Your task to perform on an android device: check battery use Image 0: 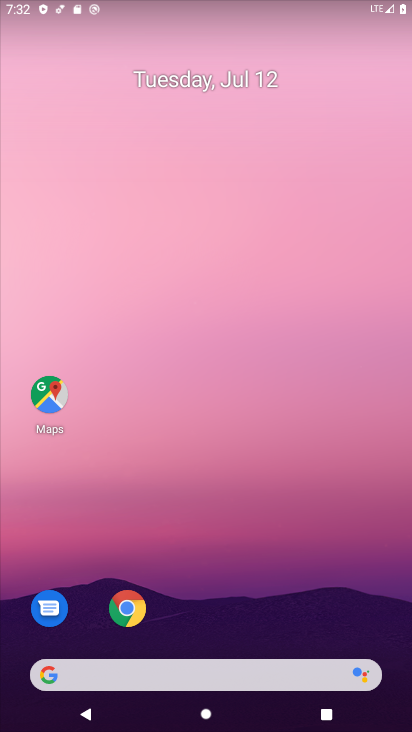
Step 0: drag from (170, 652) to (299, 234)
Your task to perform on an android device: check battery use Image 1: 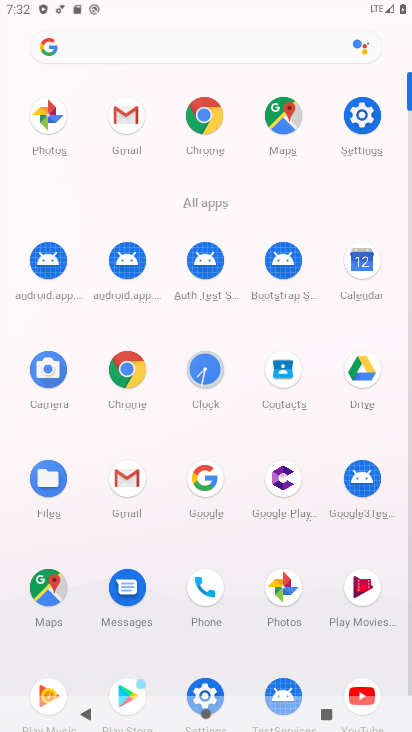
Step 1: click (368, 123)
Your task to perform on an android device: check battery use Image 2: 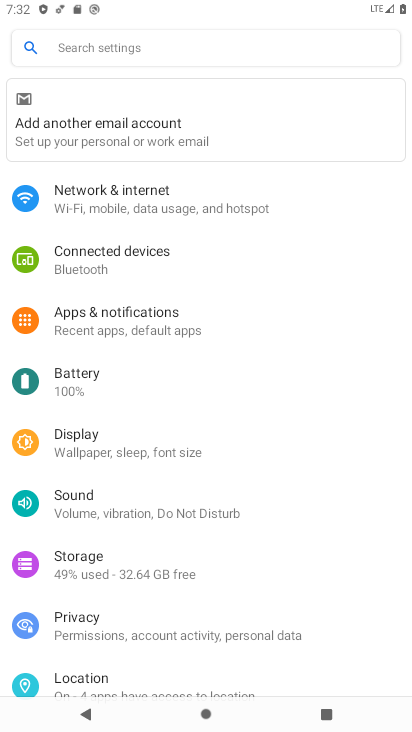
Step 2: click (94, 375)
Your task to perform on an android device: check battery use Image 3: 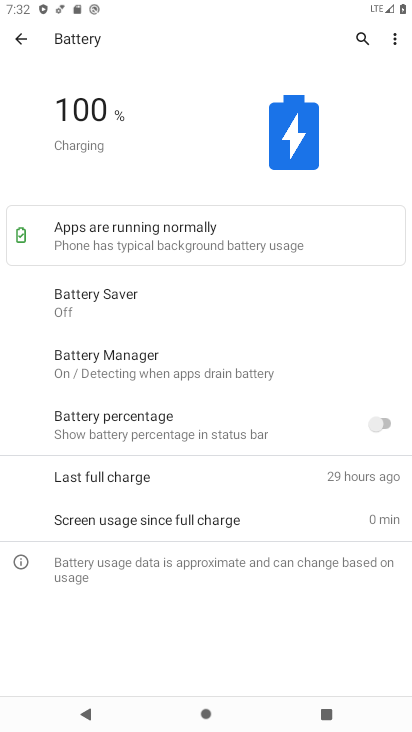
Step 3: click (396, 42)
Your task to perform on an android device: check battery use Image 4: 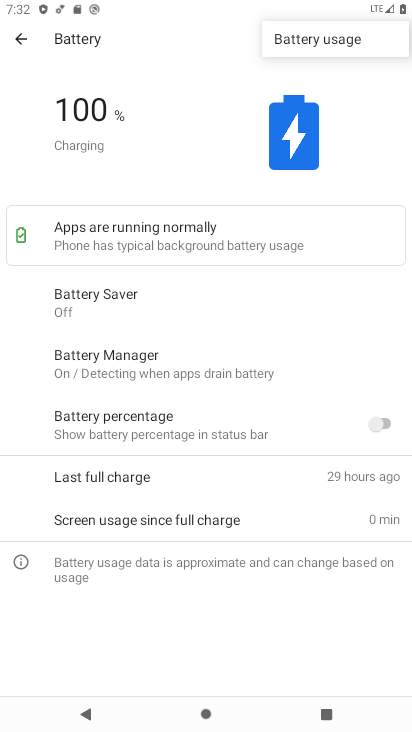
Step 4: click (322, 36)
Your task to perform on an android device: check battery use Image 5: 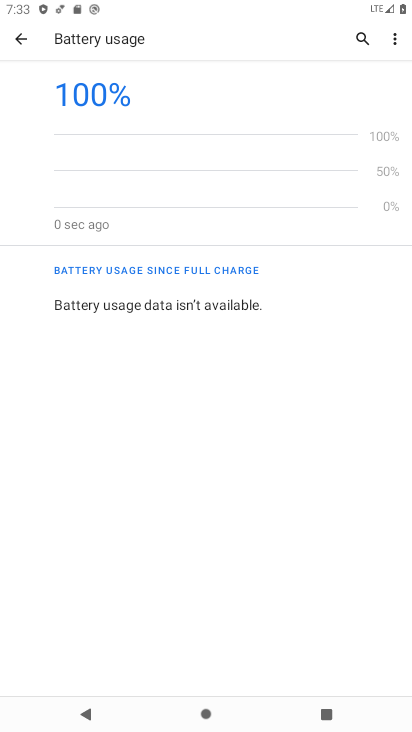
Step 5: task complete